Your task to perform on an android device: Open the Play Movies app and select the watchlist tab. Image 0: 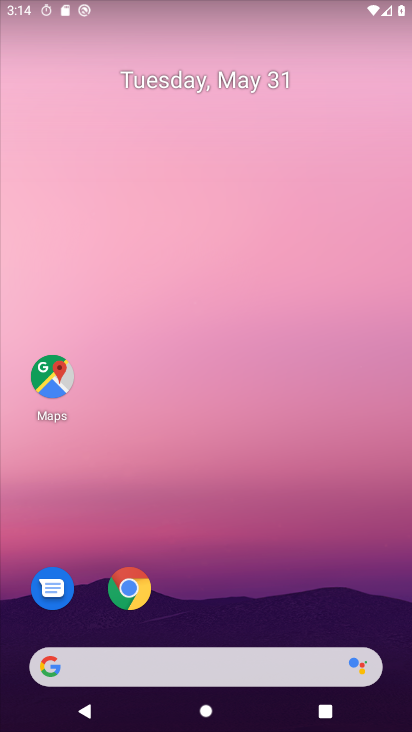
Step 0: drag from (226, 585) to (314, 0)
Your task to perform on an android device: Open the Play Movies app and select the watchlist tab. Image 1: 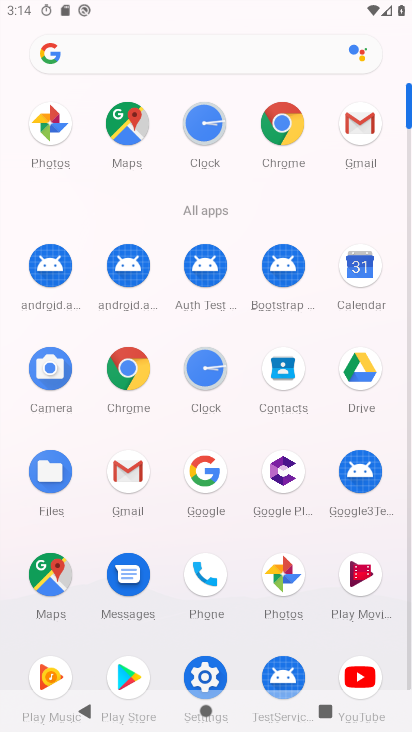
Step 1: click (354, 682)
Your task to perform on an android device: Open the Play Movies app and select the watchlist tab. Image 2: 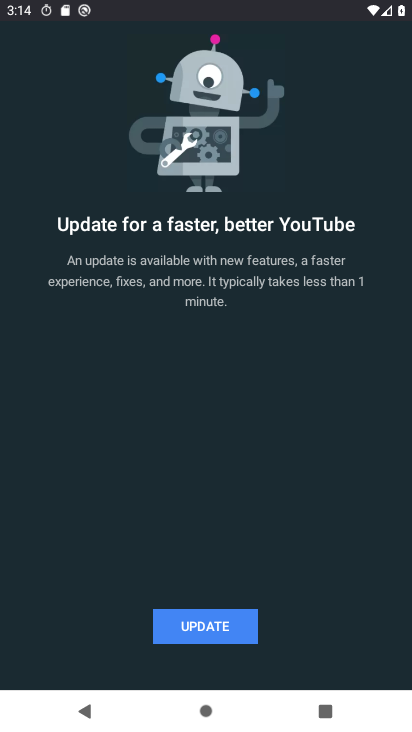
Step 2: press home button
Your task to perform on an android device: Open the Play Movies app and select the watchlist tab. Image 3: 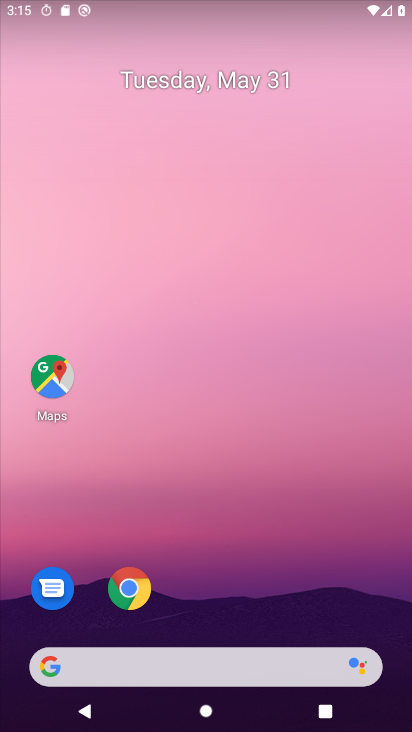
Step 3: drag from (236, 677) to (204, 184)
Your task to perform on an android device: Open the Play Movies app and select the watchlist tab. Image 4: 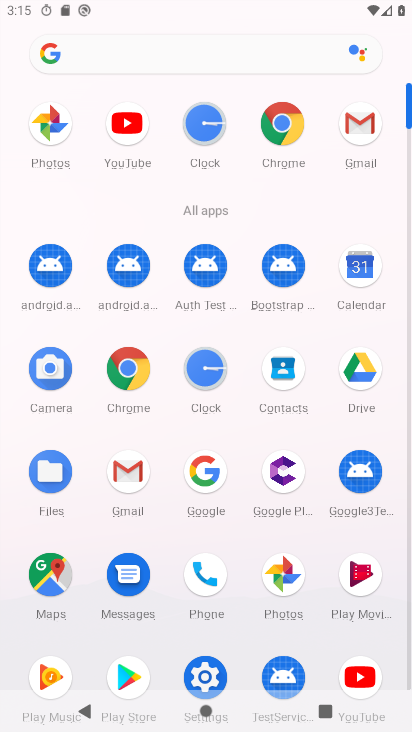
Step 4: drag from (270, 561) to (268, 274)
Your task to perform on an android device: Open the Play Movies app and select the watchlist tab. Image 5: 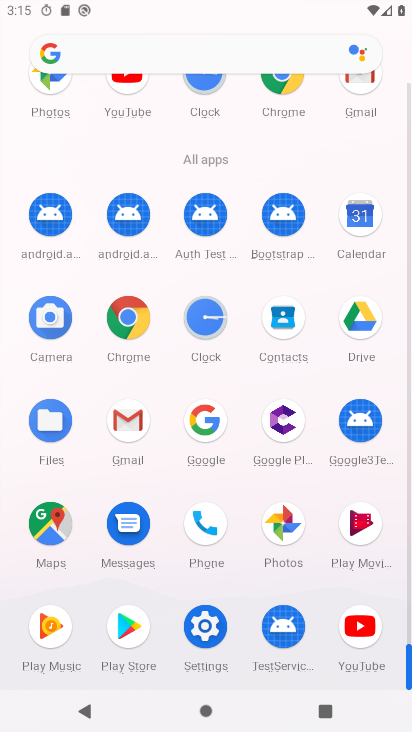
Step 5: click (364, 538)
Your task to perform on an android device: Open the Play Movies app and select the watchlist tab. Image 6: 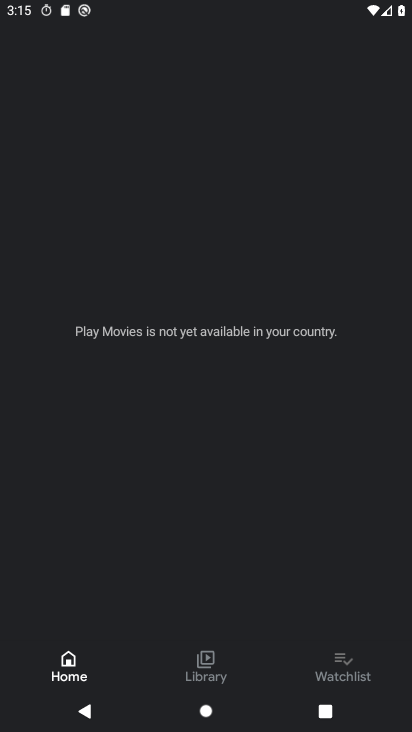
Step 6: click (366, 659)
Your task to perform on an android device: Open the Play Movies app and select the watchlist tab. Image 7: 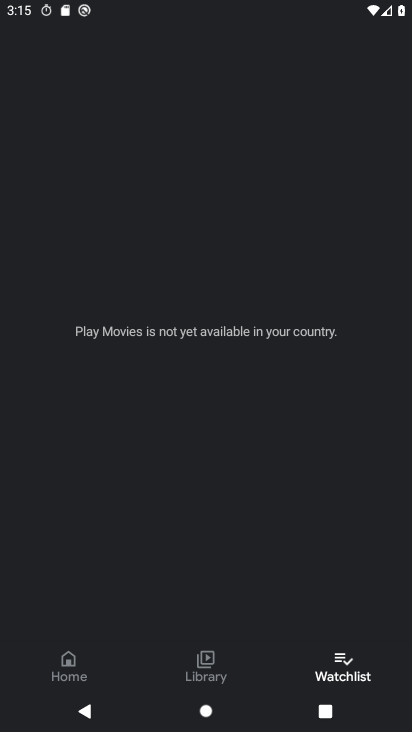
Step 7: task complete